Your task to perform on an android device: Open Google Chrome and click the shortcut for Amazon.com Image 0: 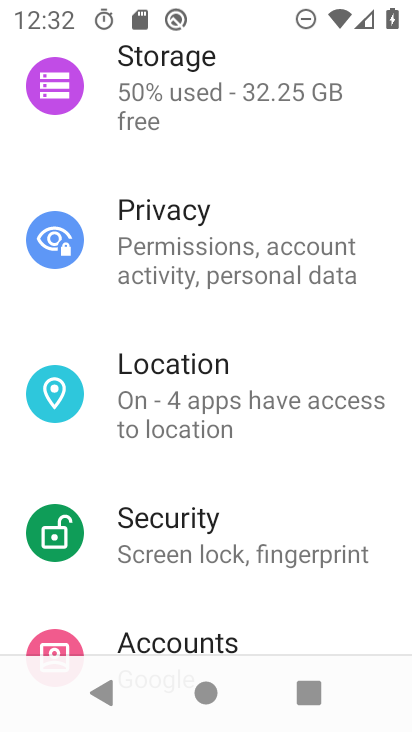
Step 0: press home button
Your task to perform on an android device: Open Google Chrome and click the shortcut for Amazon.com Image 1: 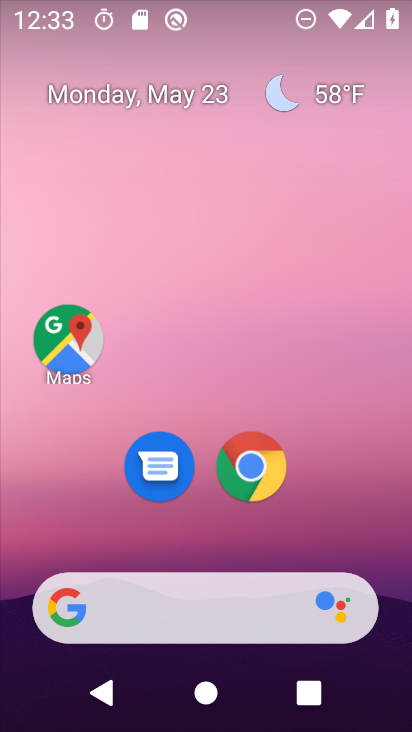
Step 1: click (259, 465)
Your task to perform on an android device: Open Google Chrome and click the shortcut for Amazon.com Image 2: 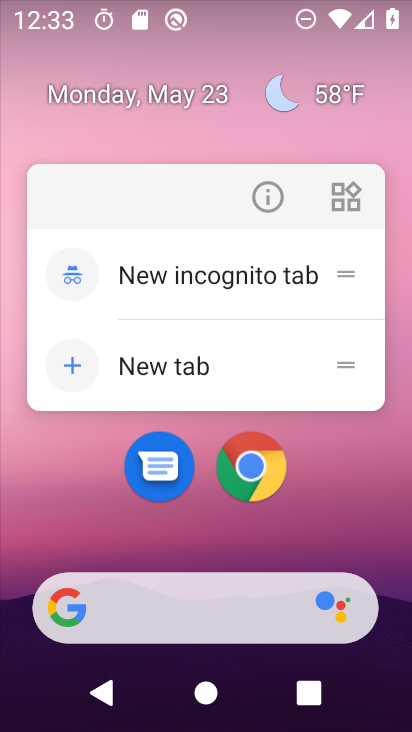
Step 2: click (252, 466)
Your task to perform on an android device: Open Google Chrome and click the shortcut for Amazon.com Image 3: 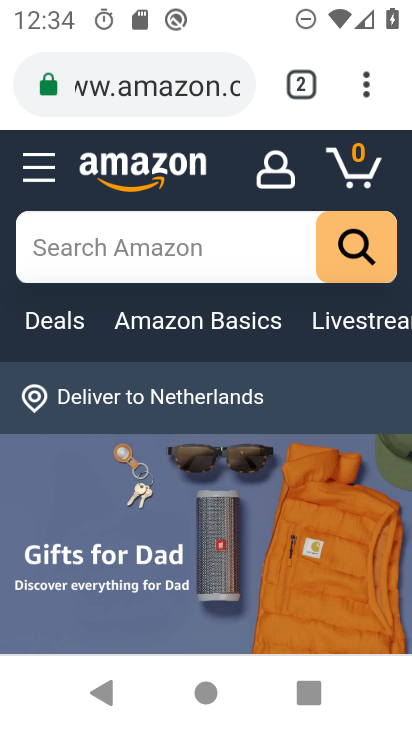
Step 3: task complete